Your task to perform on an android device: Go to Wikipedia Image 0: 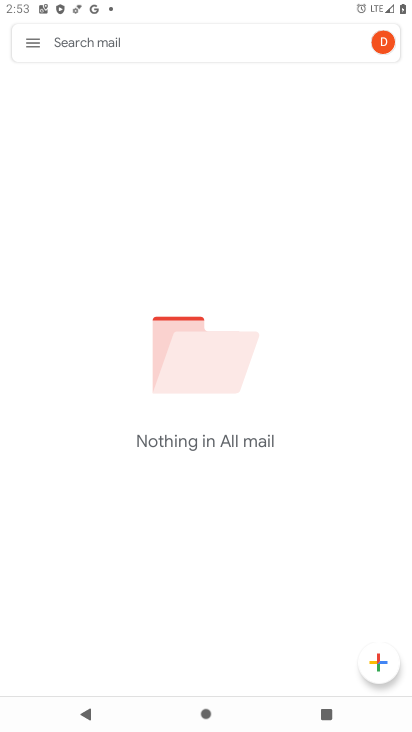
Step 0: press home button
Your task to perform on an android device: Go to Wikipedia Image 1: 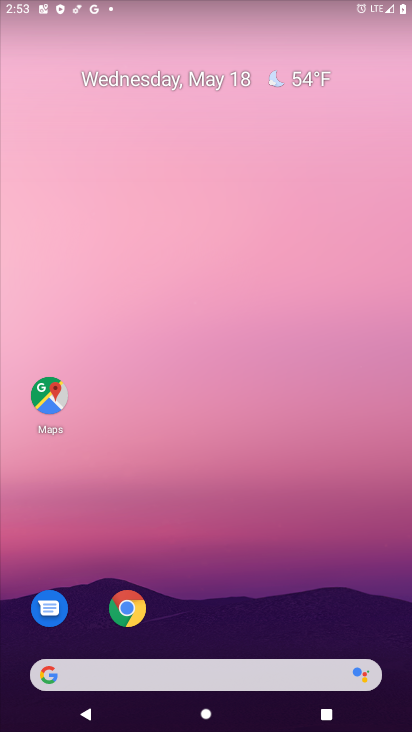
Step 1: click (126, 614)
Your task to perform on an android device: Go to Wikipedia Image 2: 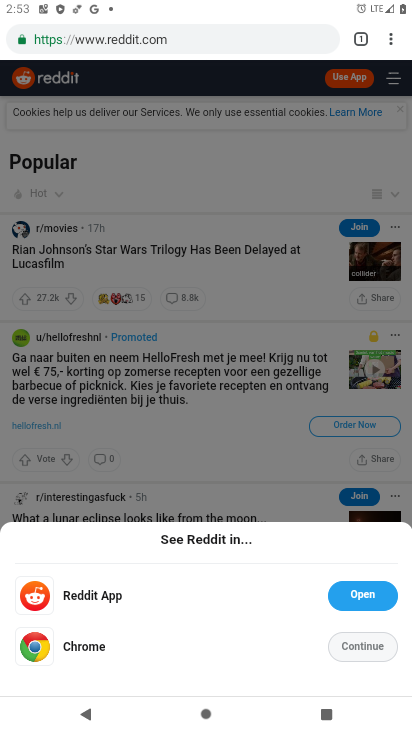
Step 2: click (106, 46)
Your task to perform on an android device: Go to Wikipedia Image 3: 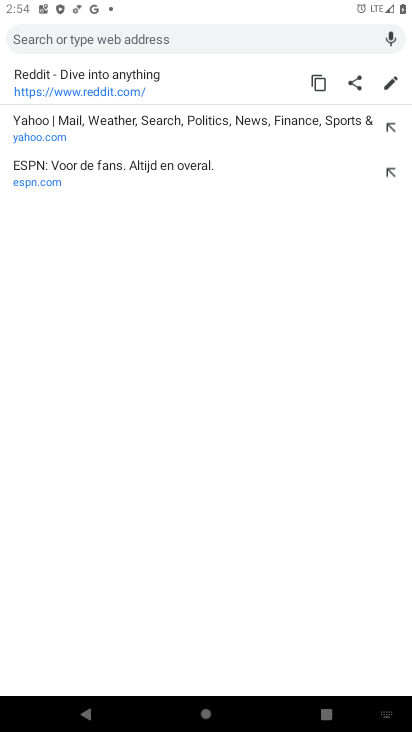
Step 3: type "wikipedia"
Your task to perform on an android device: Go to Wikipedia Image 4: 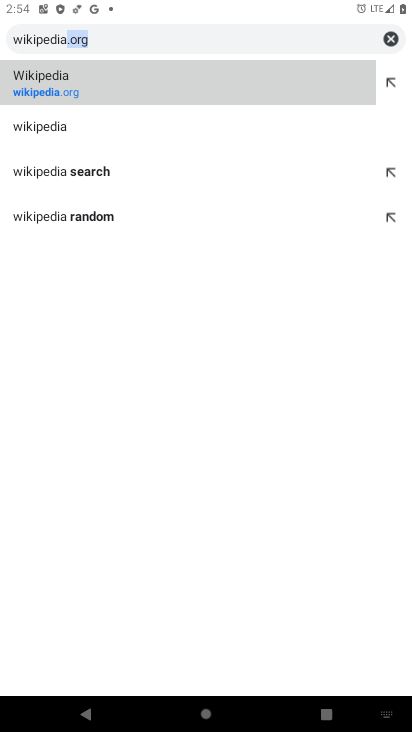
Step 4: click (9, 91)
Your task to perform on an android device: Go to Wikipedia Image 5: 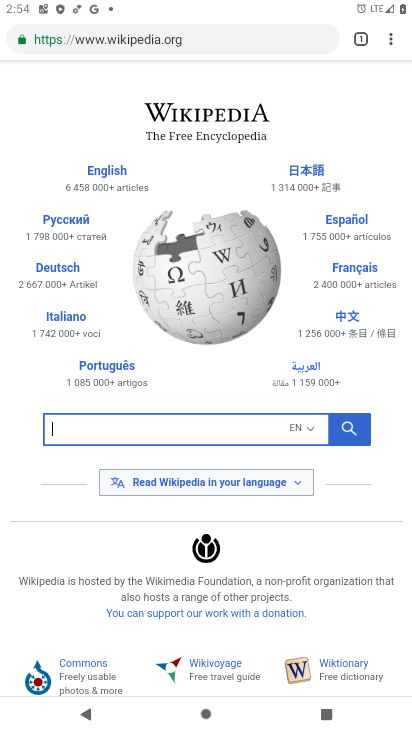
Step 5: task complete